Your task to perform on an android device: see creations saved in the google photos Image 0: 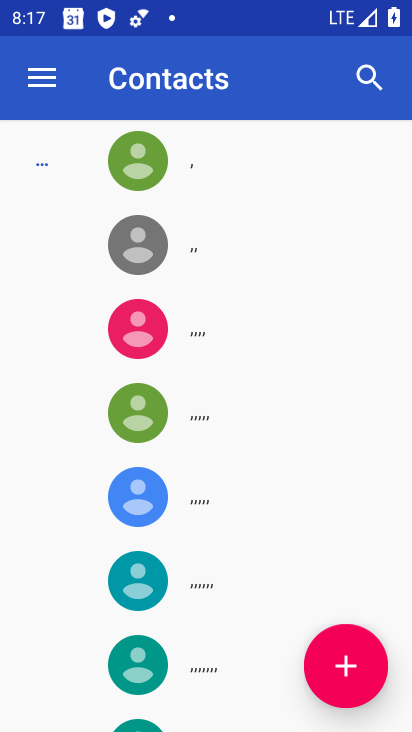
Step 0: press back button
Your task to perform on an android device: see creations saved in the google photos Image 1: 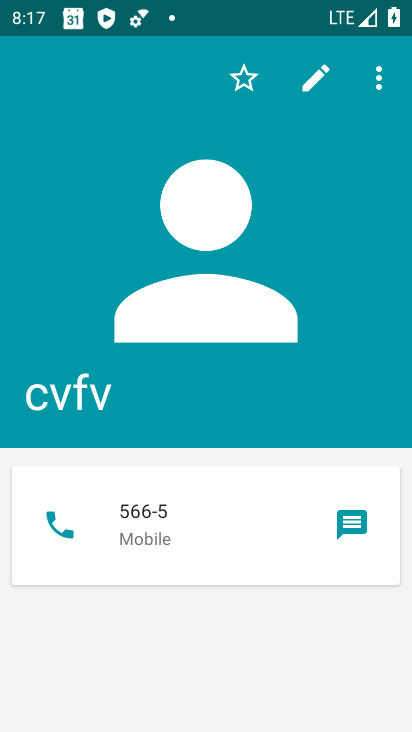
Step 1: press back button
Your task to perform on an android device: see creations saved in the google photos Image 2: 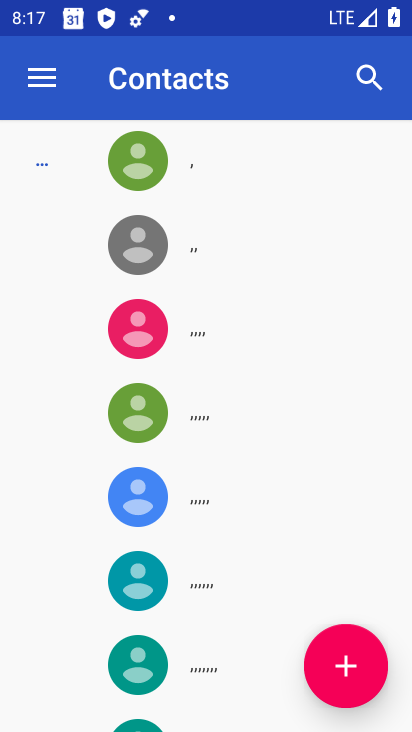
Step 2: press back button
Your task to perform on an android device: see creations saved in the google photos Image 3: 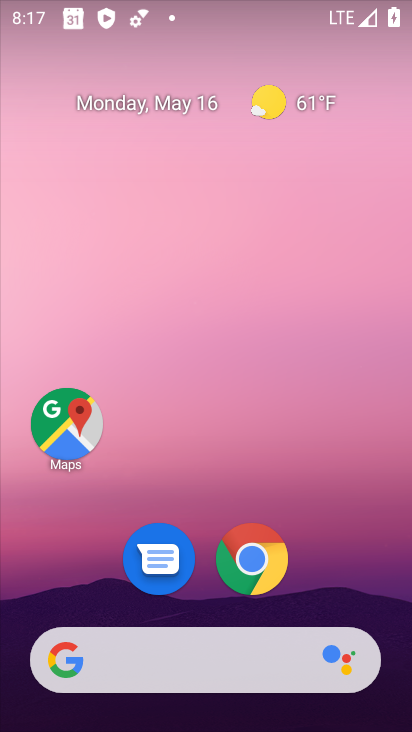
Step 3: drag from (213, 601) to (236, 134)
Your task to perform on an android device: see creations saved in the google photos Image 4: 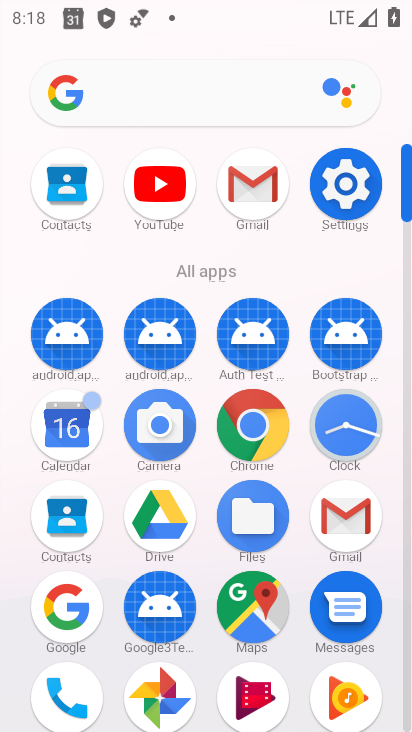
Step 4: click (165, 685)
Your task to perform on an android device: see creations saved in the google photos Image 5: 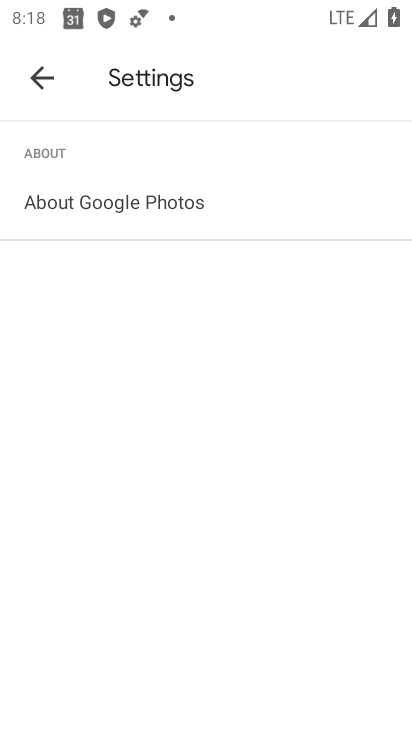
Step 5: click (36, 70)
Your task to perform on an android device: see creations saved in the google photos Image 6: 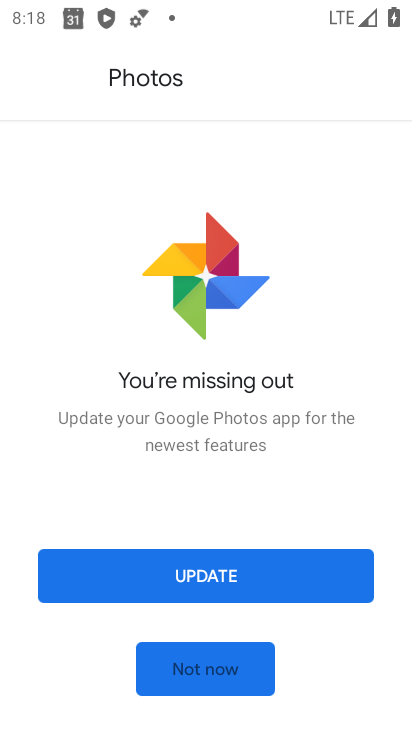
Step 6: click (205, 663)
Your task to perform on an android device: see creations saved in the google photos Image 7: 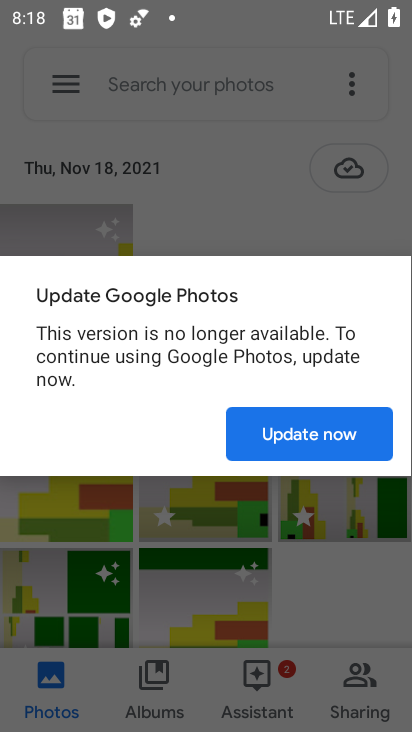
Step 7: click (266, 437)
Your task to perform on an android device: see creations saved in the google photos Image 8: 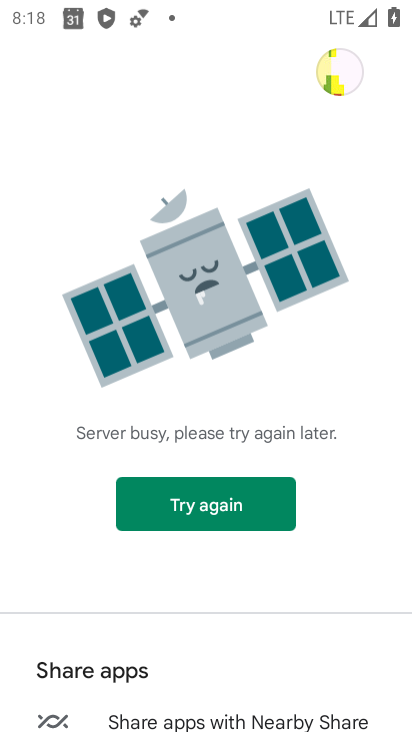
Step 8: click (243, 494)
Your task to perform on an android device: see creations saved in the google photos Image 9: 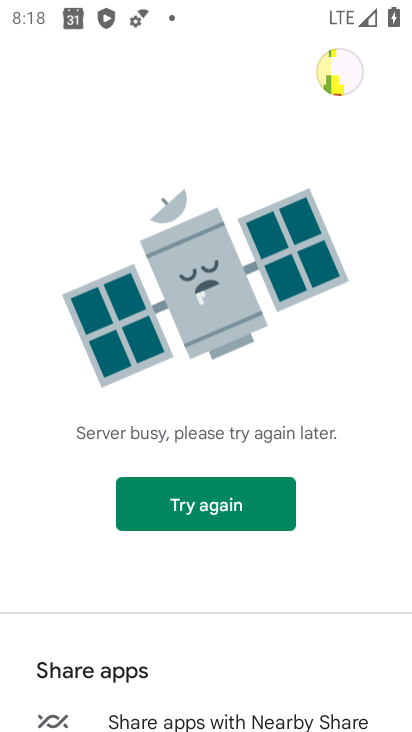
Step 9: click (246, 503)
Your task to perform on an android device: see creations saved in the google photos Image 10: 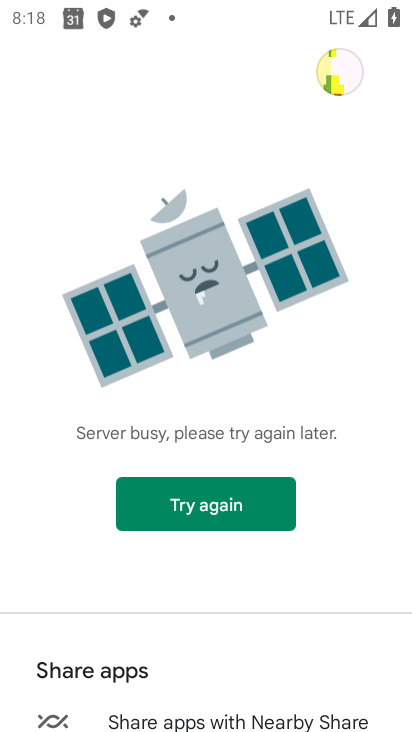
Step 10: click (238, 505)
Your task to perform on an android device: see creations saved in the google photos Image 11: 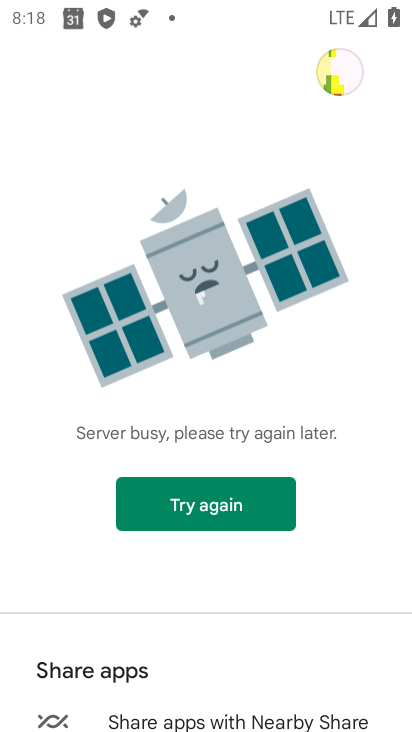
Step 11: press back button
Your task to perform on an android device: see creations saved in the google photos Image 12: 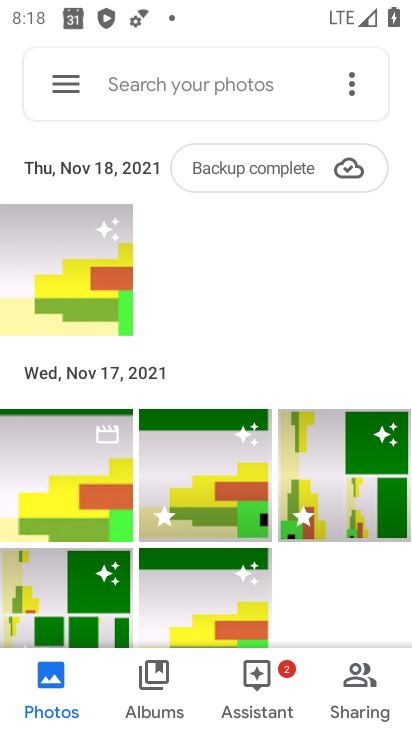
Step 12: click (70, 86)
Your task to perform on an android device: see creations saved in the google photos Image 13: 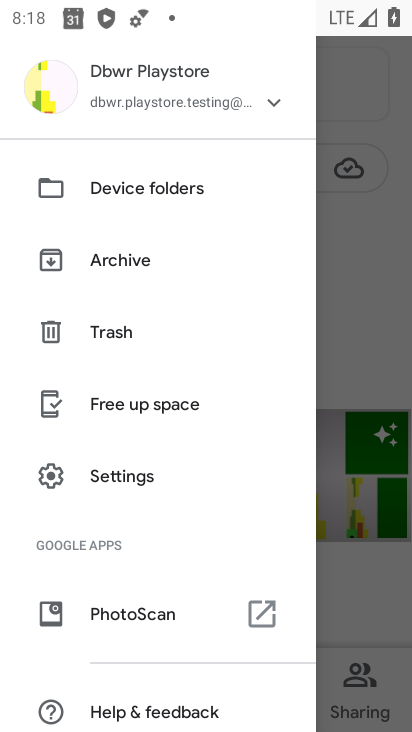
Step 13: click (136, 255)
Your task to perform on an android device: see creations saved in the google photos Image 14: 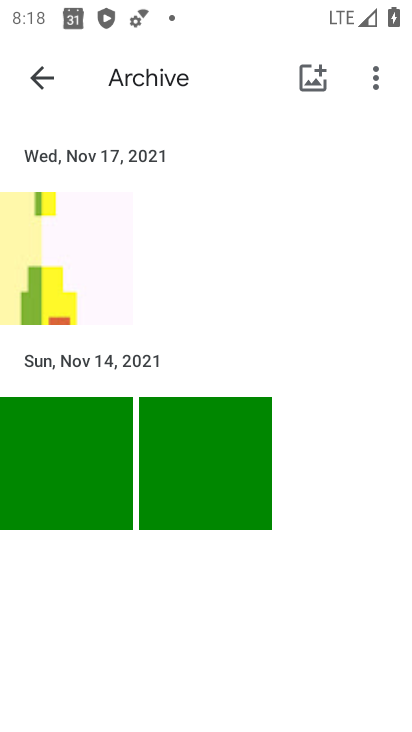
Step 14: task complete